Your task to perform on an android device: Go to Google Image 0: 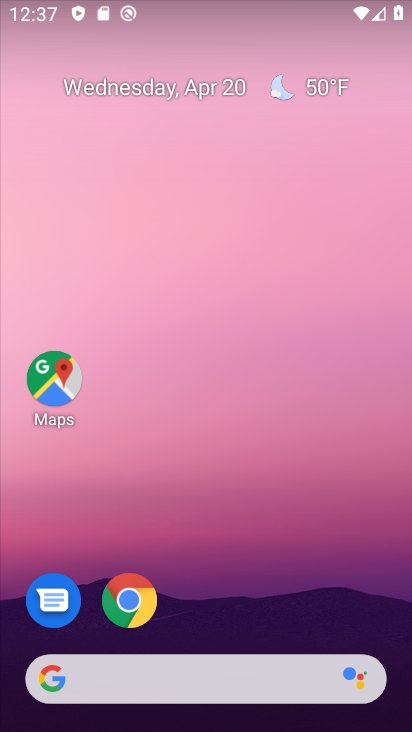
Step 0: drag from (286, 494) to (316, 188)
Your task to perform on an android device: Go to Google Image 1: 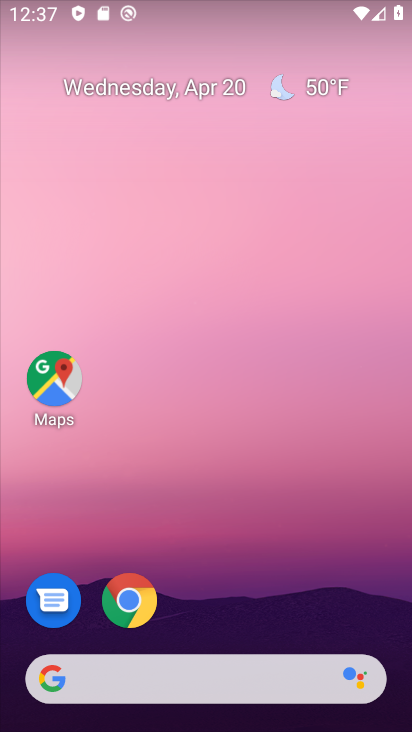
Step 1: drag from (227, 621) to (262, 43)
Your task to perform on an android device: Go to Google Image 2: 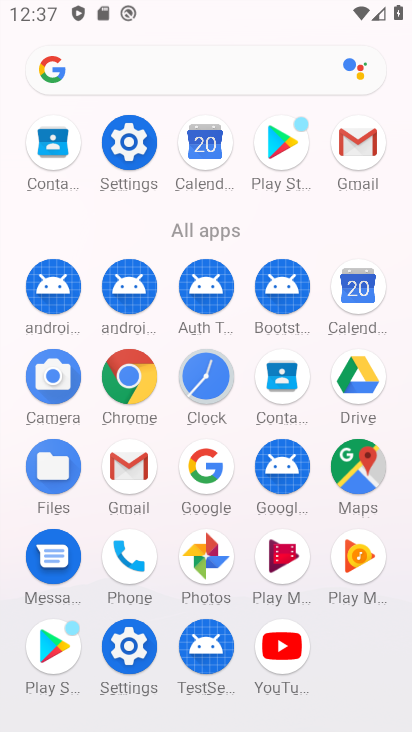
Step 2: click (214, 470)
Your task to perform on an android device: Go to Google Image 3: 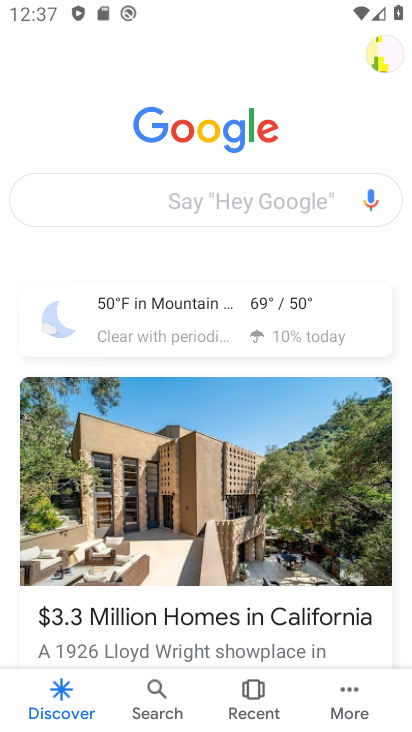
Step 3: task complete